Your task to perform on an android device: uninstall "Instagram" Image 0: 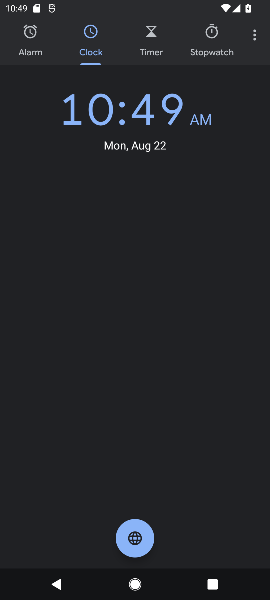
Step 0: press home button
Your task to perform on an android device: uninstall "Instagram" Image 1: 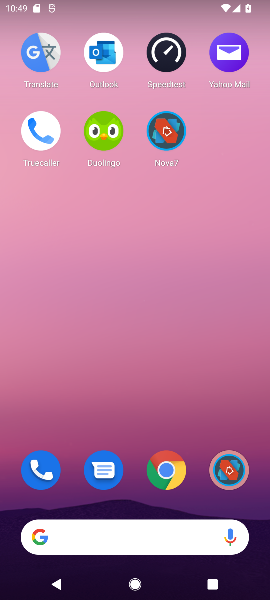
Step 1: drag from (117, 505) to (136, 26)
Your task to perform on an android device: uninstall "Instagram" Image 2: 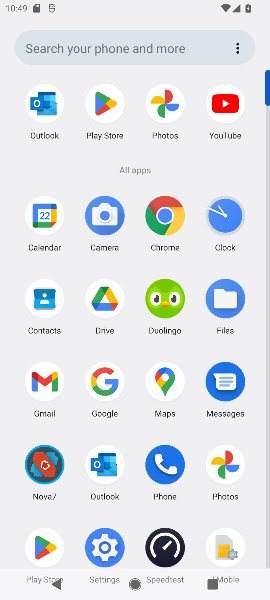
Step 2: click (100, 108)
Your task to perform on an android device: uninstall "Instagram" Image 3: 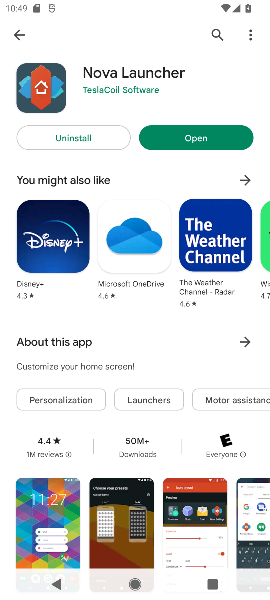
Step 3: press back button
Your task to perform on an android device: uninstall "Instagram" Image 4: 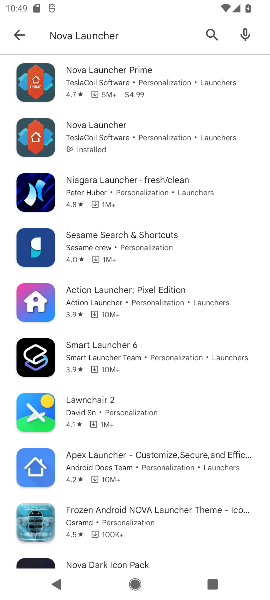
Step 4: press back button
Your task to perform on an android device: uninstall "Instagram" Image 5: 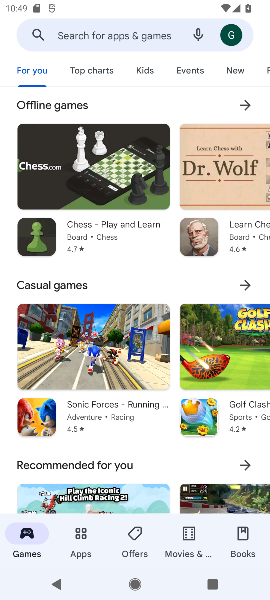
Step 5: click (80, 28)
Your task to perform on an android device: uninstall "Instagram" Image 6: 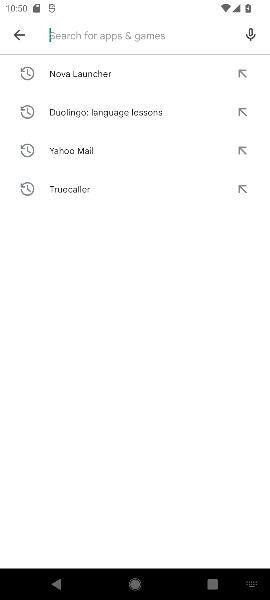
Step 6: type "Instagram"
Your task to perform on an android device: uninstall "Instagram" Image 7: 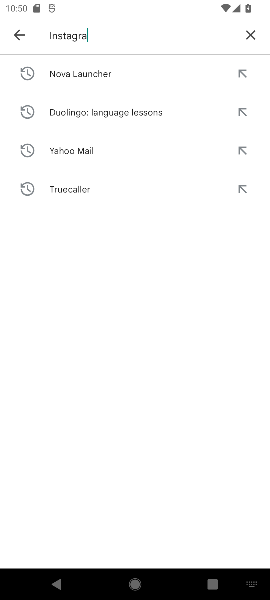
Step 7: press enter
Your task to perform on an android device: uninstall "Instagram" Image 8: 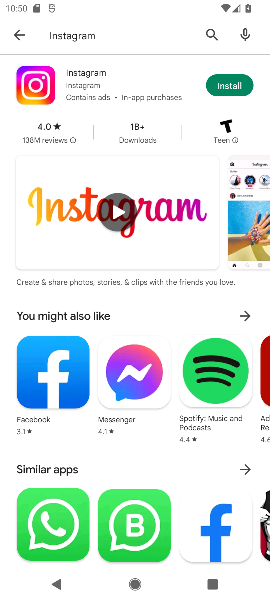
Step 8: task complete